Your task to perform on an android device: Open the phone app and click the voicemail tab. Image 0: 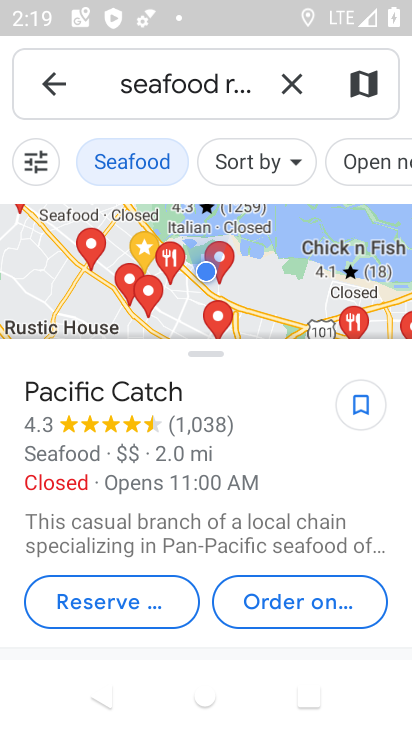
Step 0: press home button
Your task to perform on an android device: Open the phone app and click the voicemail tab. Image 1: 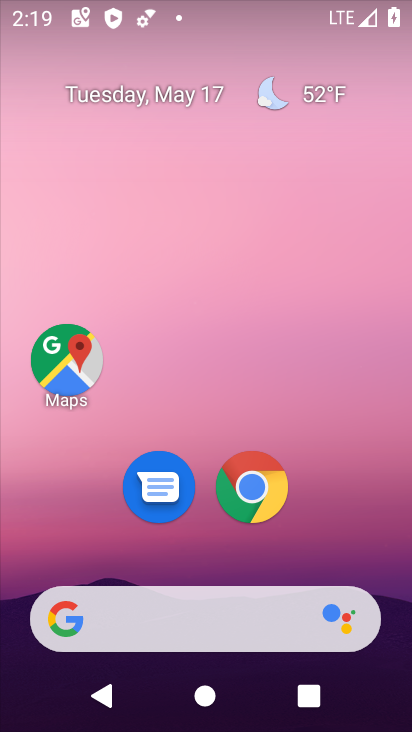
Step 1: drag from (401, 649) to (401, 436)
Your task to perform on an android device: Open the phone app and click the voicemail tab. Image 2: 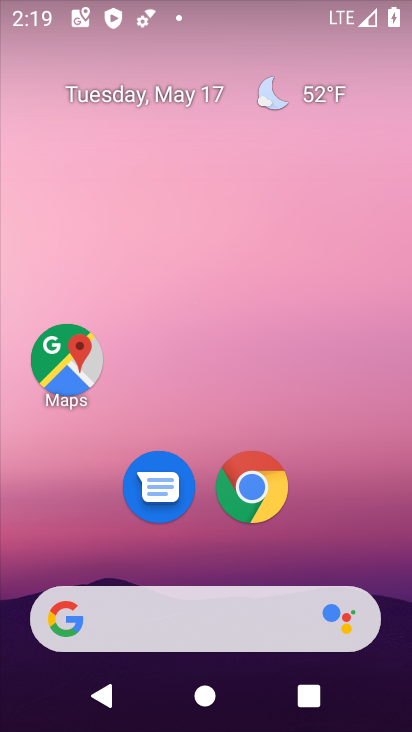
Step 2: drag from (398, 655) to (381, 397)
Your task to perform on an android device: Open the phone app and click the voicemail tab. Image 3: 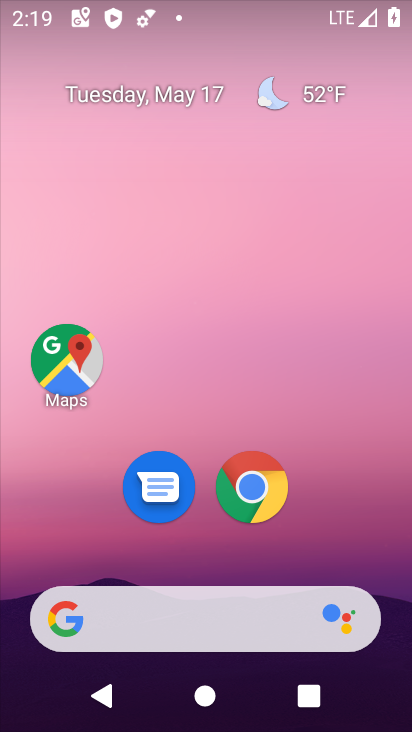
Step 3: drag from (393, 443) to (378, 259)
Your task to perform on an android device: Open the phone app and click the voicemail tab. Image 4: 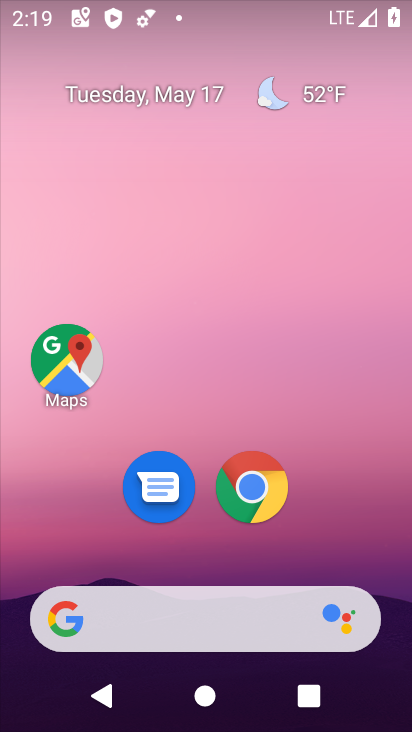
Step 4: drag from (401, 606) to (368, 216)
Your task to perform on an android device: Open the phone app and click the voicemail tab. Image 5: 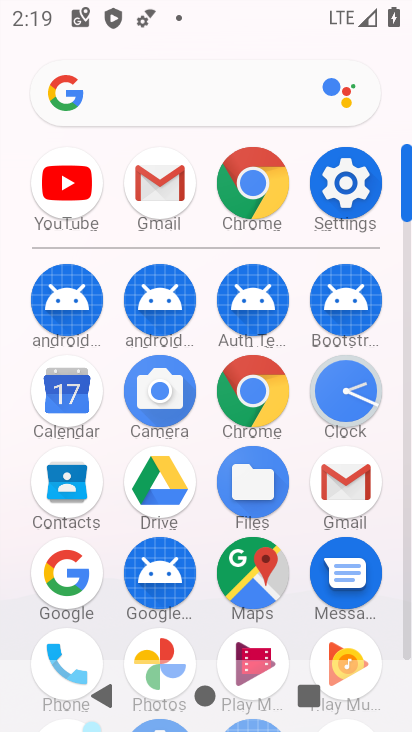
Step 5: drag from (409, 152) to (400, 60)
Your task to perform on an android device: Open the phone app and click the voicemail tab. Image 6: 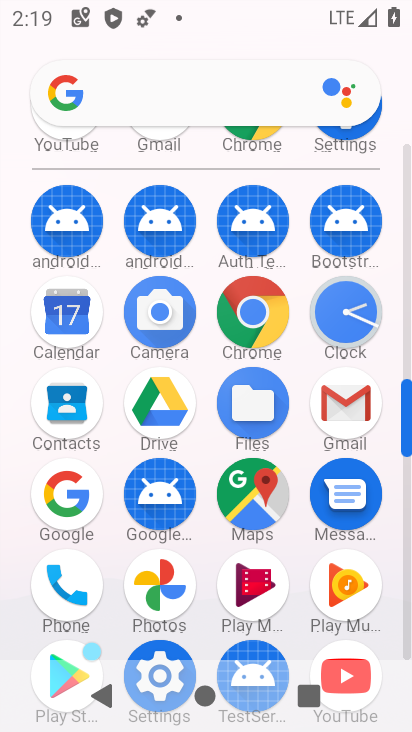
Step 6: drag from (407, 375) to (404, 237)
Your task to perform on an android device: Open the phone app and click the voicemail tab. Image 7: 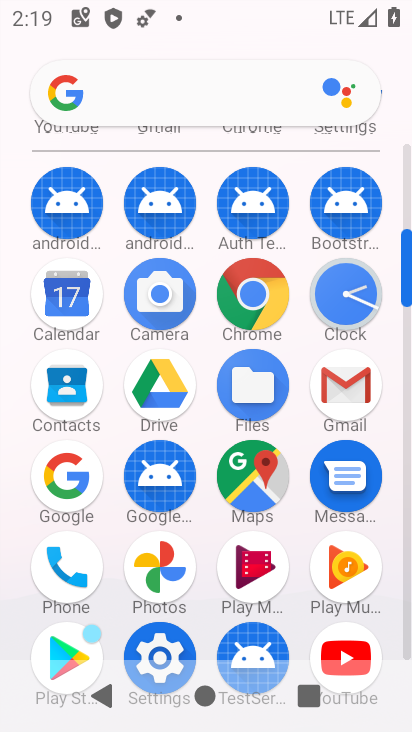
Step 7: click (409, 222)
Your task to perform on an android device: Open the phone app and click the voicemail tab. Image 8: 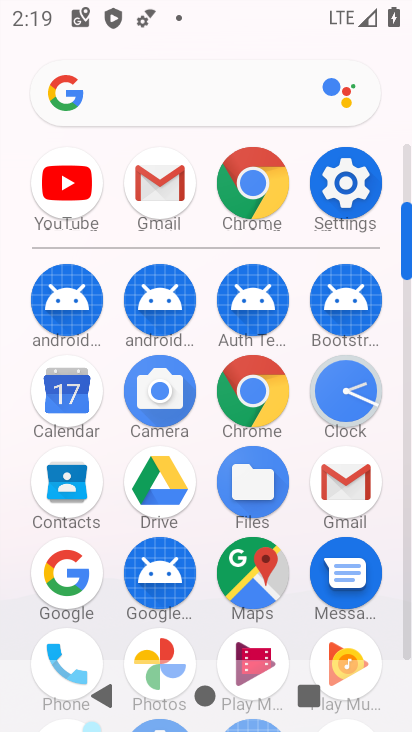
Step 8: drag from (405, 204) to (394, 112)
Your task to perform on an android device: Open the phone app and click the voicemail tab. Image 9: 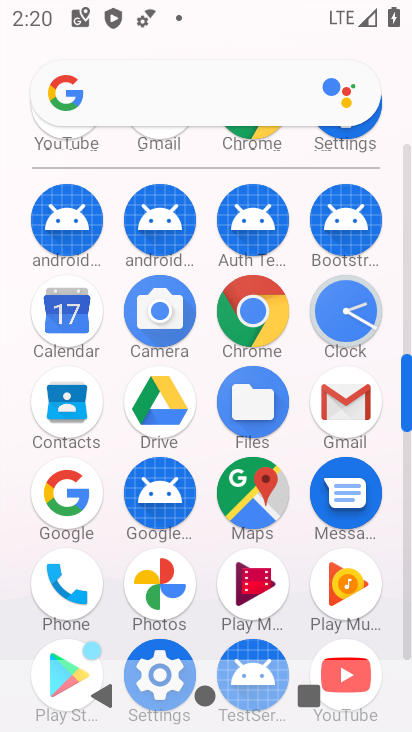
Step 9: drag from (406, 352) to (411, 307)
Your task to perform on an android device: Open the phone app and click the voicemail tab. Image 10: 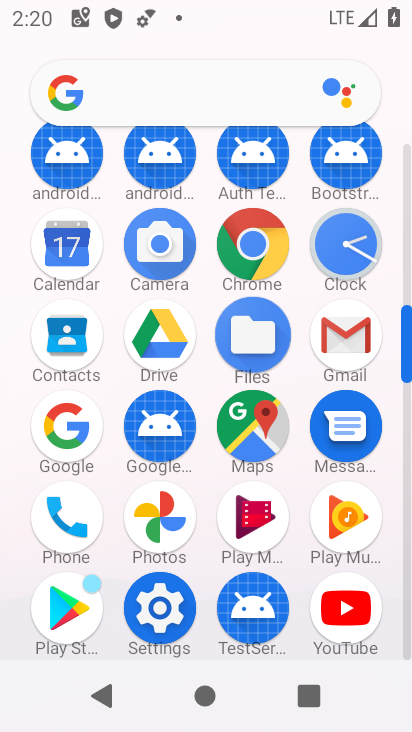
Step 10: click (407, 278)
Your task to perform on an android device: Open the phone app and click the voicemail tab. Image 11: 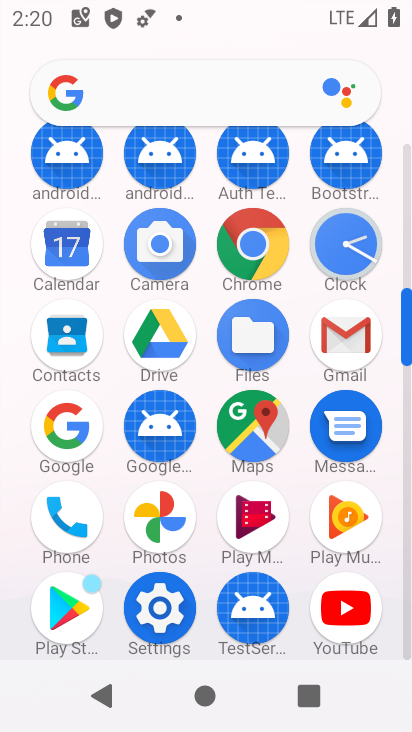
Step 11: click (69, 529)
Your task to perform on an android device: Open the phone app and click the voicemail tab. Image 12: 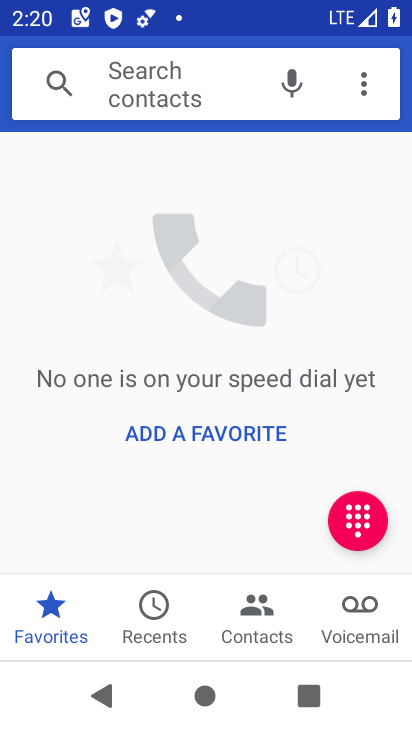
Step 12: click (365, 609)
Your task to perform on an android device: Open the phone app and click the voicemail tab. Image 13: 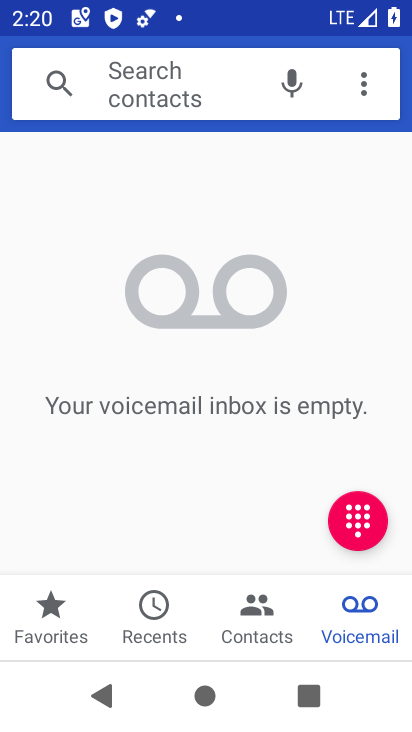
Step 13: task complete